Your task to perform on an android device: open a new tab in the chrome app Image 0: 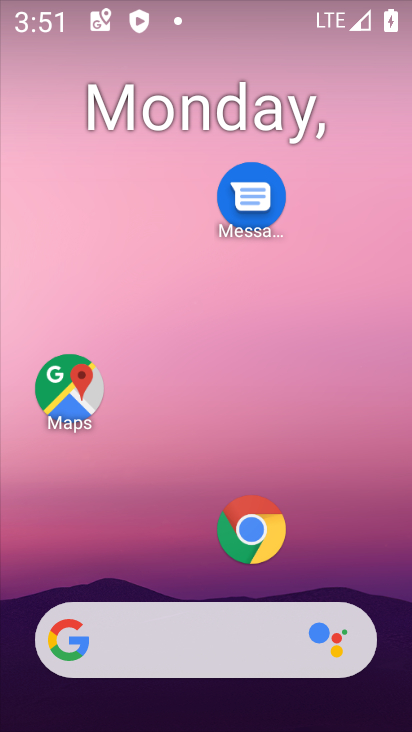
Step 0: click (259, 529)
Your task to perform on an android device: open a new tab in the chrome app Image 1: 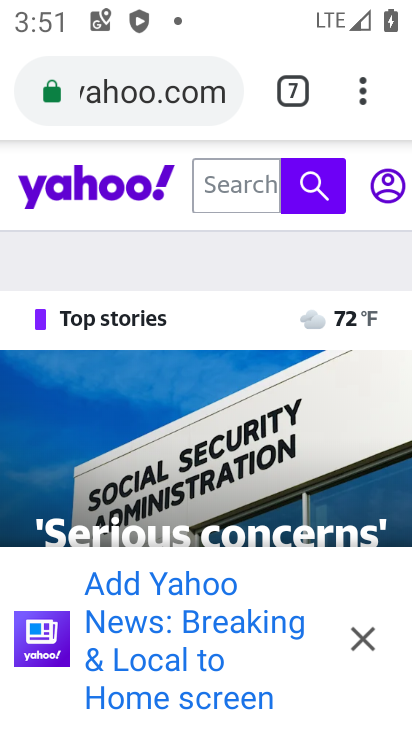
Step 1: task complete